Your task to perform on an android device: Who is the prime minister of Canada? Image 0: 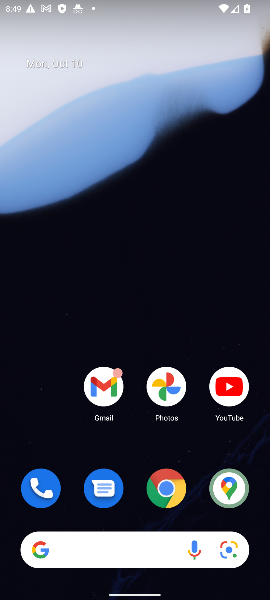
Step 0: drag from (132, 455) to (112, 2)
Your task to perform on an android device: Who is the prime minister of Canada? Image 1: 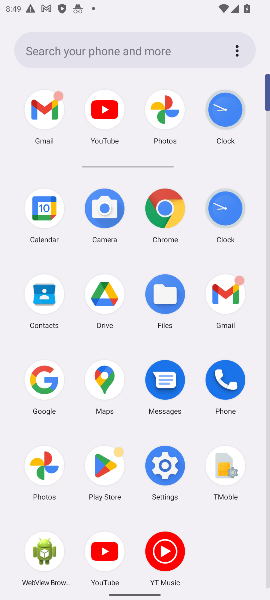
Step 1: click (164, 210)
Your task to perform on an android device: Who is the prime minister of Canada? Image 2: 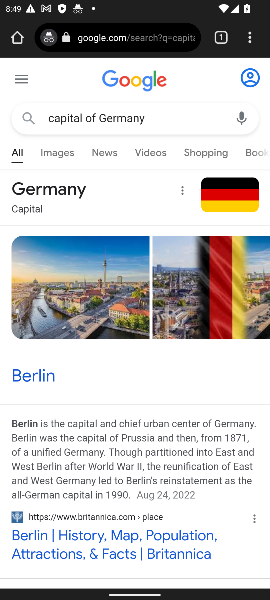
Step 2: click (111, 34)
Your task to perform on an android device: Who is the prime minister of Canada? Image 3: 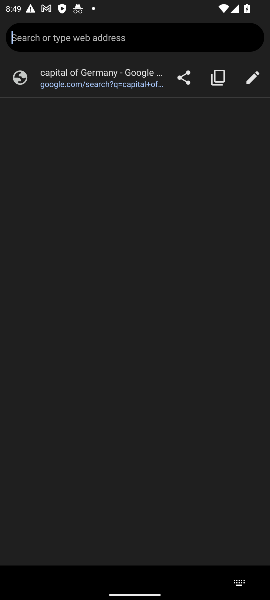
Step 3: type "prime minister of Canada"
Your task to perform on an android device: Who is the prime minister of Canada? Image 4: 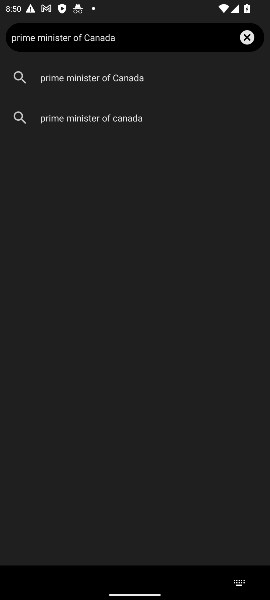
Step 4: press enter
Your task to perform on an android device: Who is the prime minister of Canada? Image 5: 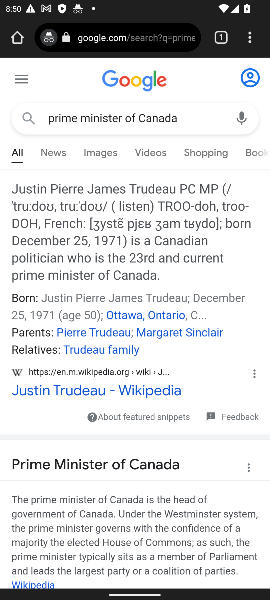
Step 5: task complete